Your task to perform on an android device: Check the news Image 0: 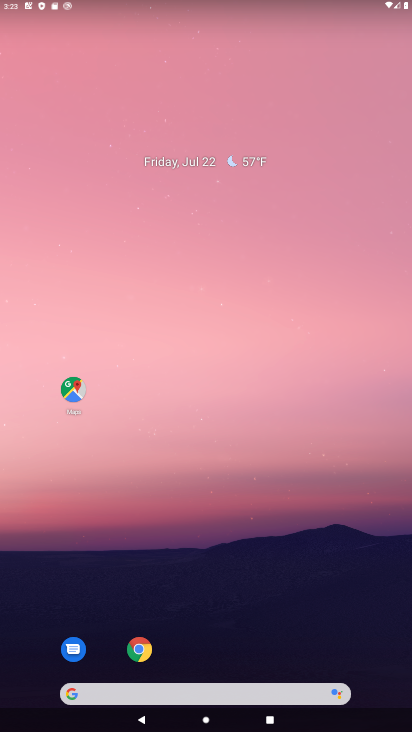
Step 0: click (83, 701)
Your task to perform on an android device: Check the news Image 1: 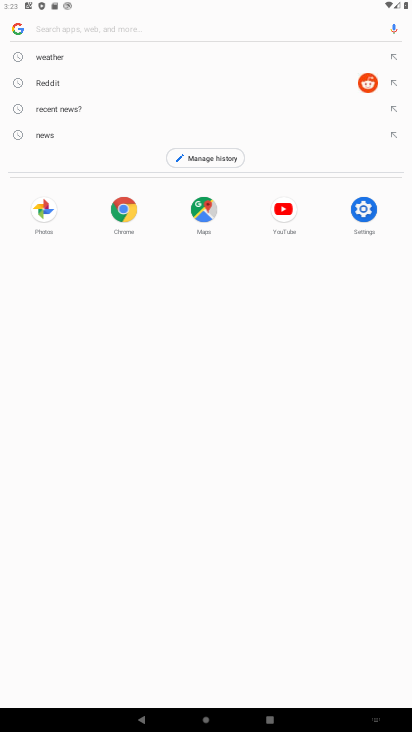
Step 1: type "Check the news"
Your task to perform on an android device: Check the news Image 2: 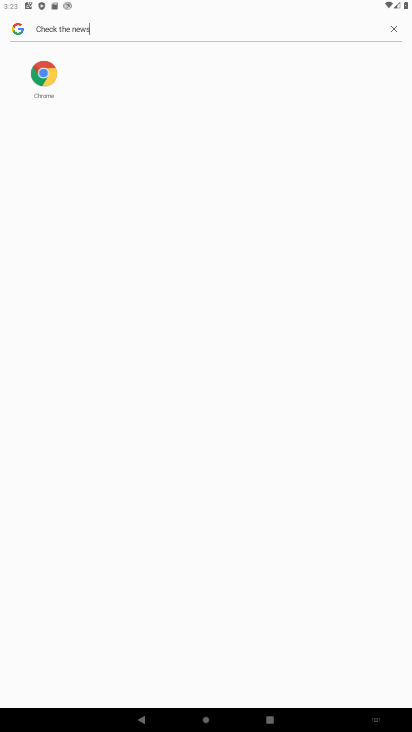
Step 2: type ""
Your task to perform on an android device: Check the news Image 3: 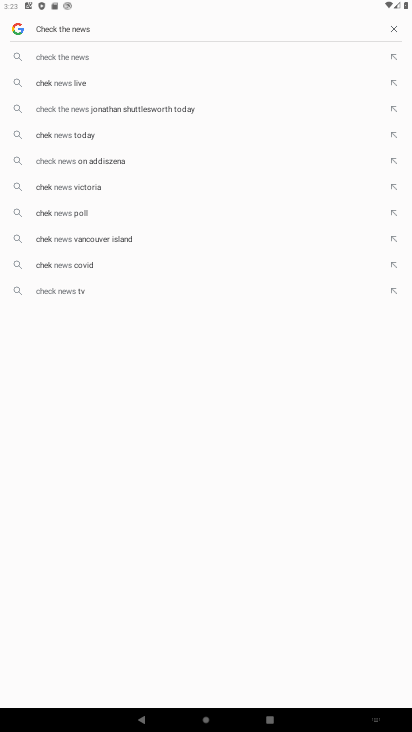
Step 3: type ""
Your task to perform on an android device: Check the news Image 4: 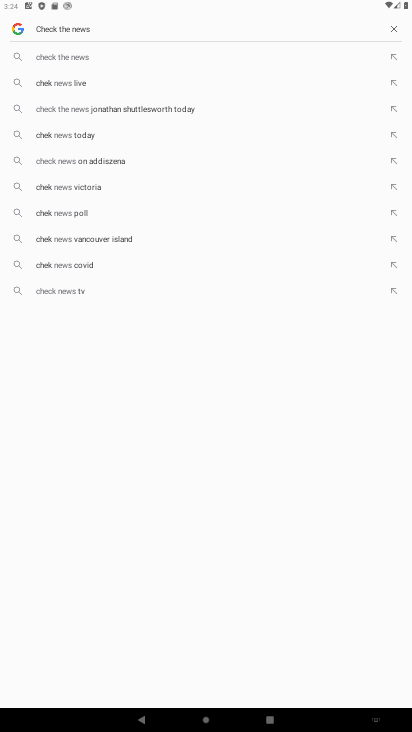
Step 4: type ""
Your task to perform on an android device: Check the news Image 5: 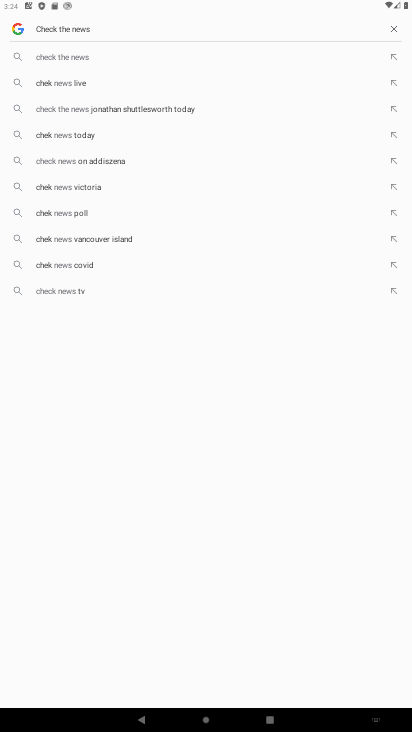
Step 5: task complete